Your task to perform on an android device: How much does a 3 bedroom apartment rent for in Los Angeles? Image 0: 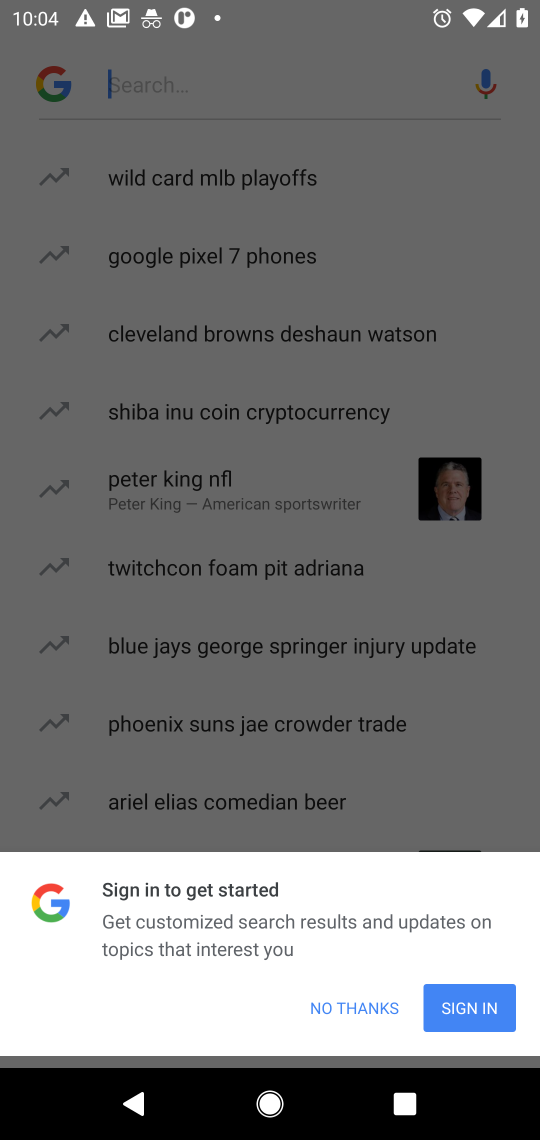
Step 0: press home button
Your task to perform on an android device: How much does a 3 bedroom apartment rent for in Los Angeles? Image 1: 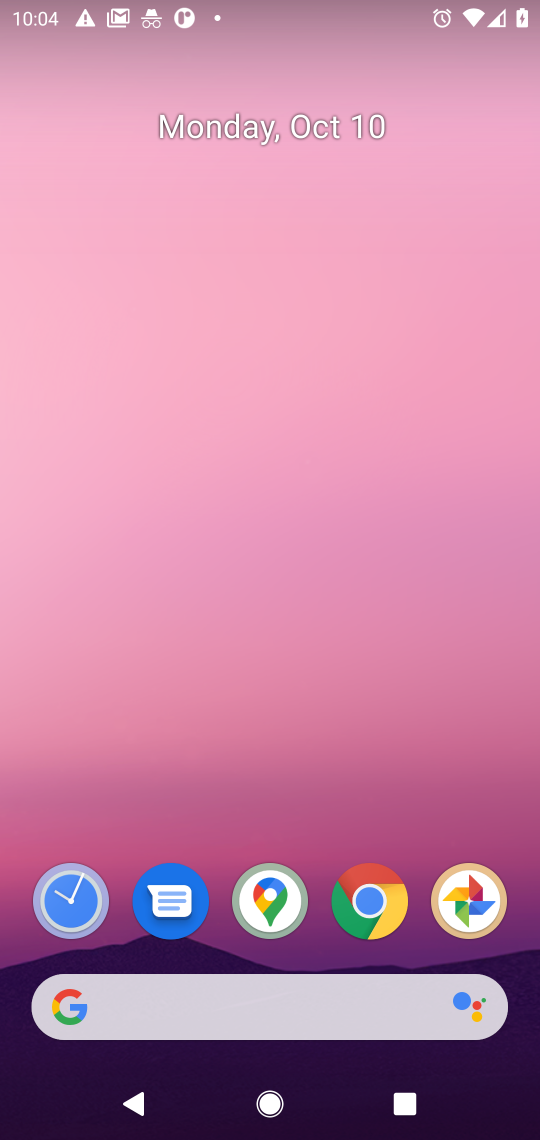
Step 1: click (261, 999)
Your task to perform on an android device: How much does a 3 bedroom apartment rent for in Los Angeles? Image 2: 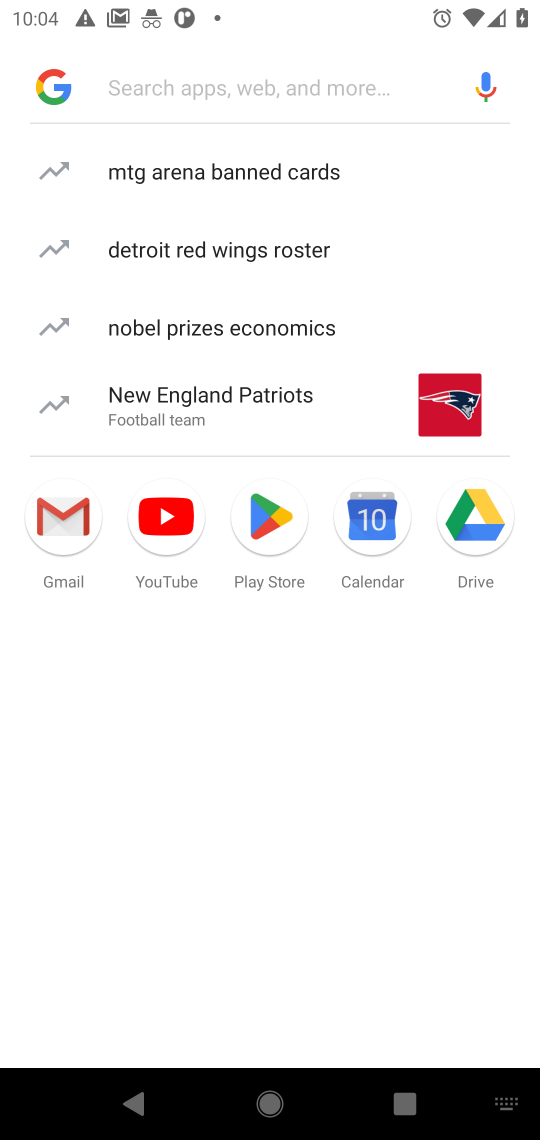
Step 2: type "3 bedroom apartment rent for in Los Angeles"
Your task to perform on an android device: How much does a 3 bedroom apartment rent for in Los Angeles? Image 3: 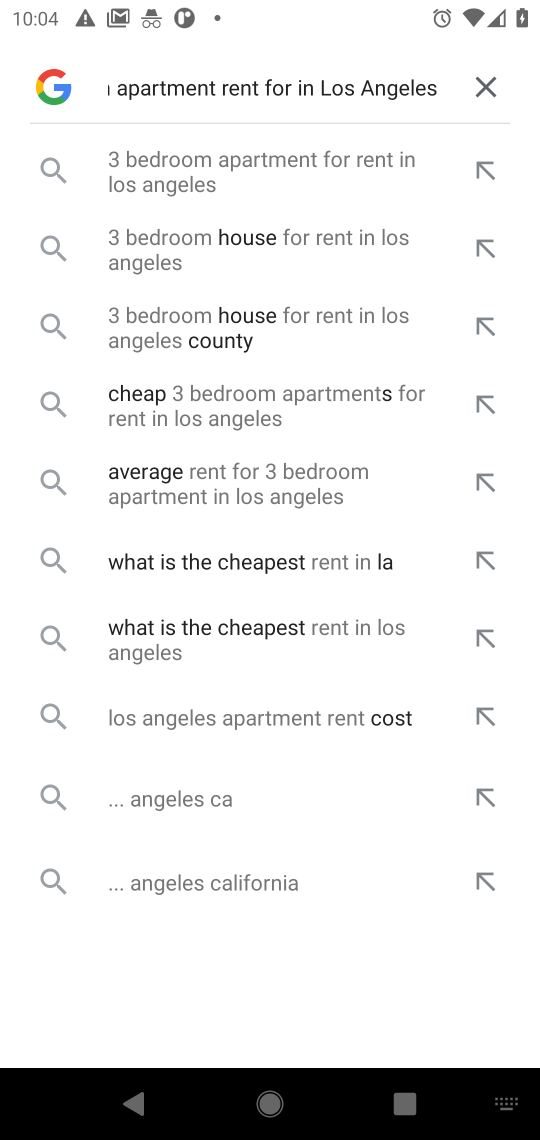
Step 3: press enter
Your task to perform on an android device: How much does a 3 bedroom apartment rent for in Los Angeles? Image 4: 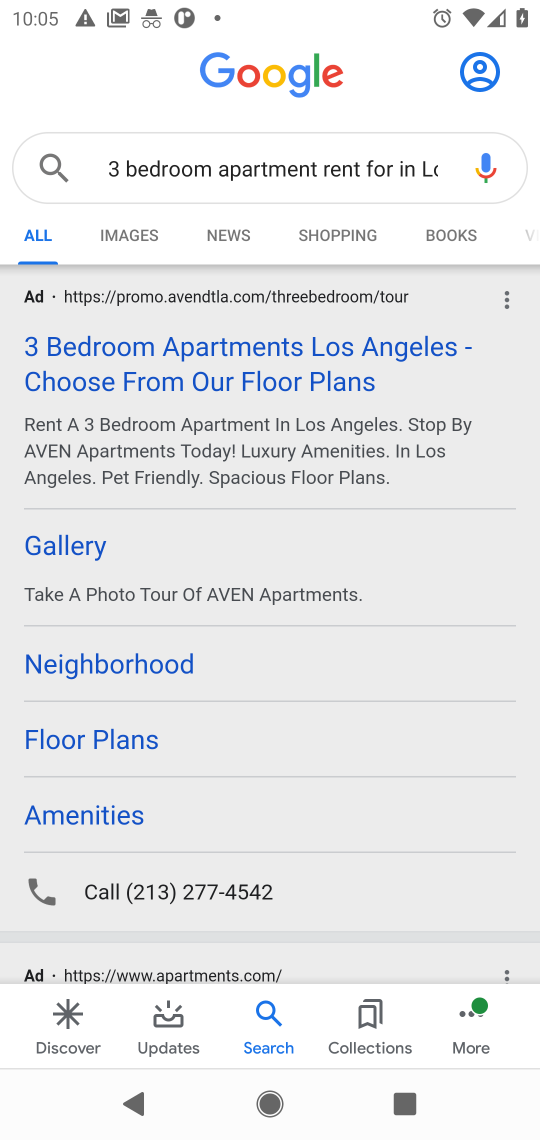
Step 4: click (252, 368)
Your task to perform on an android device: How much does a 3 bedroom apartment rent for in Los Angeles? Image 5: 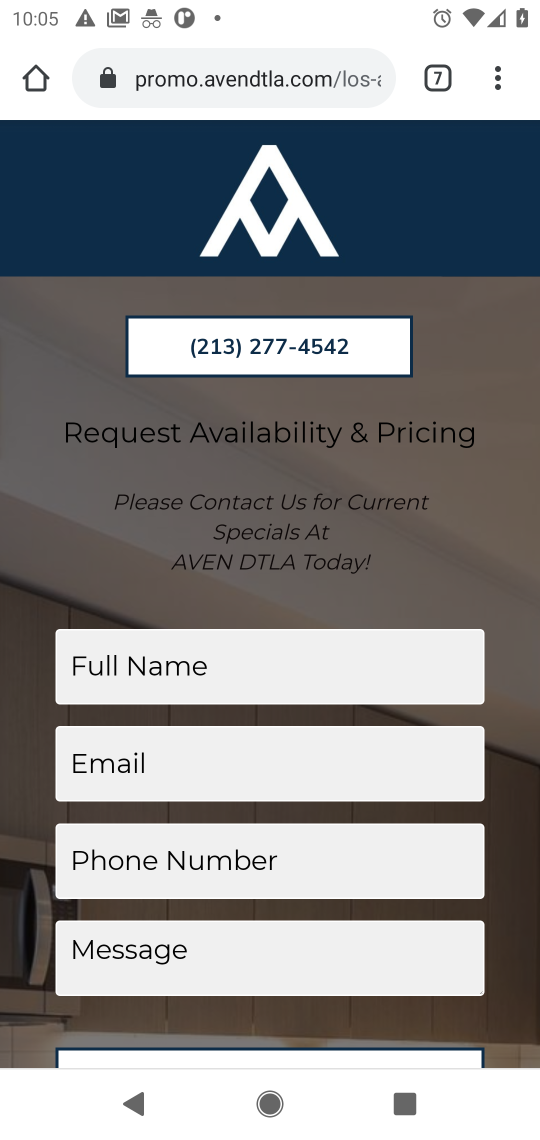
Step 5: task complete